Your task to perform on an android device: uninstall "Pluto TV - Live TV and Movies" Image 0: 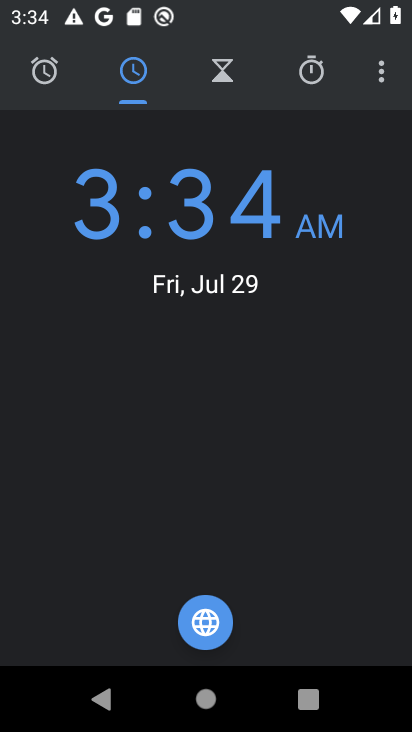
Step 0: press home button
Your task to perform on an android device: uninstall "Pluto TV - Live TV and Movies" Image 1: 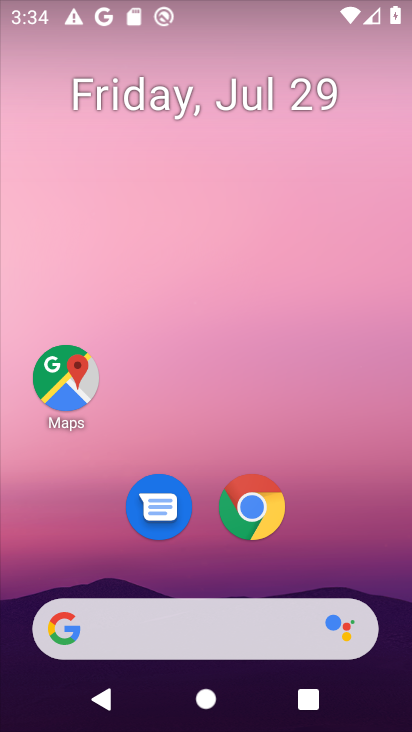
Step 1: click (215, 627)
Your task to perform on an android device: uninstall "Pluto TV - Live TV and Movies" Image 2: 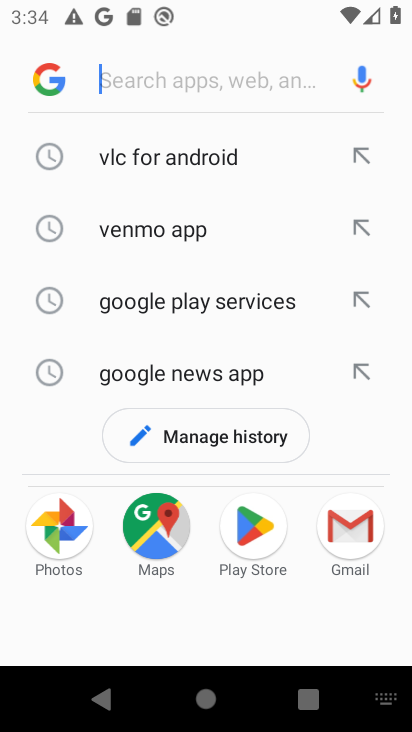
Step 2: type "pluto"
Your task to perform on an android device: uninstall "Pluto TV - Live TV and Movies" Image 3: 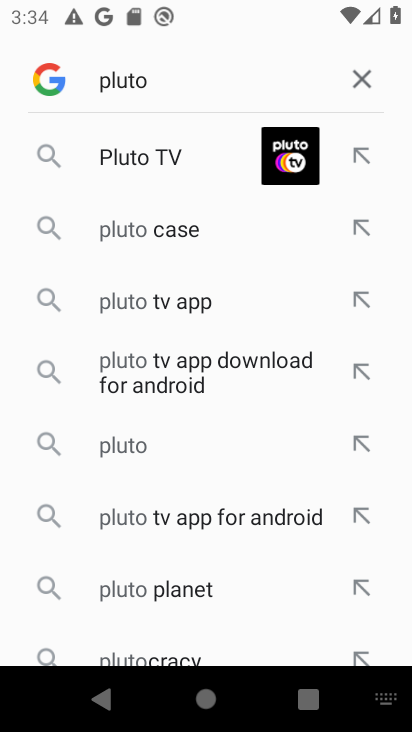
Step 3: click (154, 140)
Your task to perform on an android device: uninstall "Pluto TV - Live TV and Movies" Image 4: 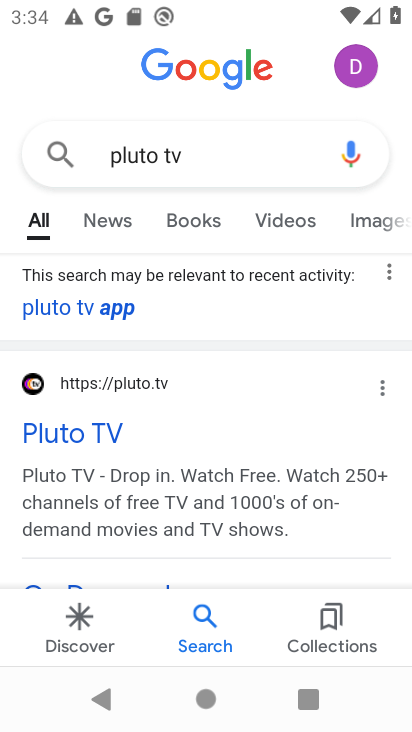
Step 4: task complete